Your task to perform on an android device: see creations saved in the google photos Image 0: 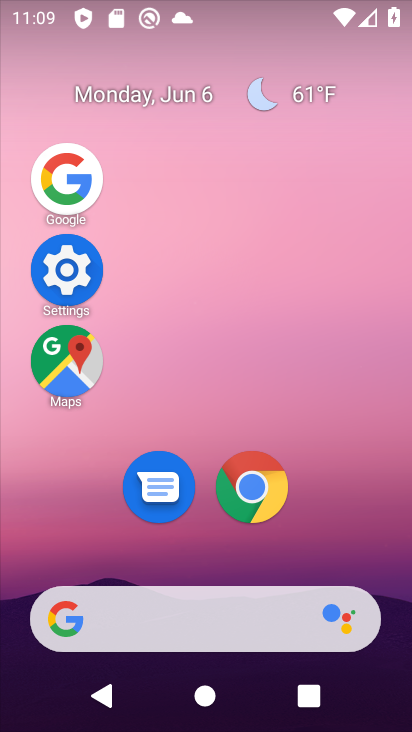
Step 0: drag from (257, 365) to (292, 66)
Your task to perform on an android device: see creations saved in the google photos Image 1: 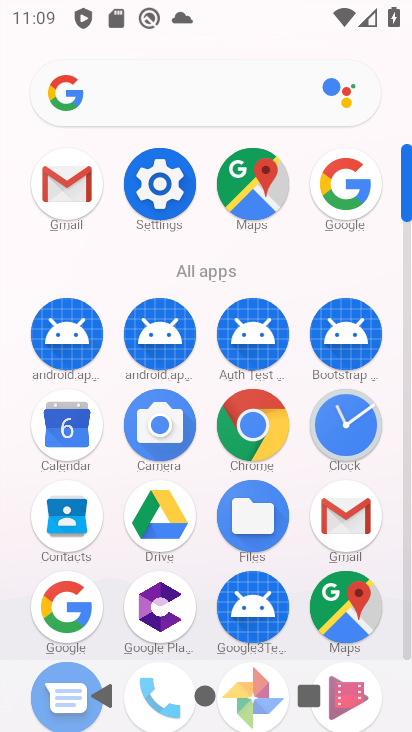
Step 1: drag from (306, 482) to (330, 271)
Your task to perform on an android device: see creations saved in the google photos Image 2: 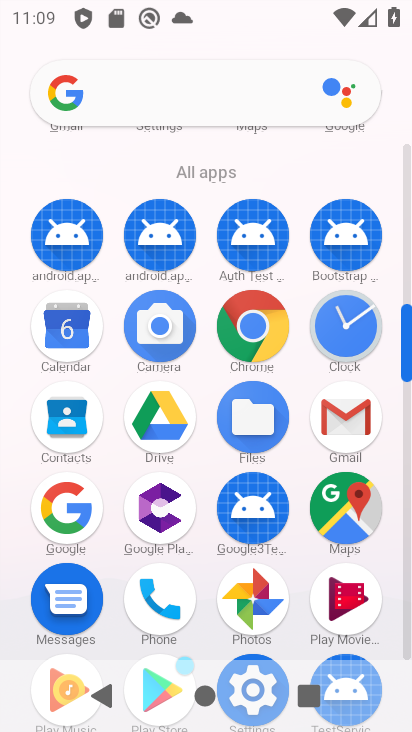
Step 2: click (259, 582)
Your task to perform on an android device: see creations saved in the google photos Image 3: 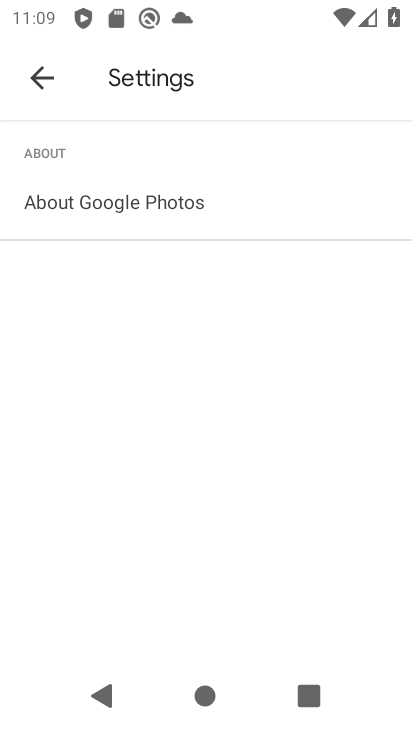
Step 3: click (33, 84)
Your task to perform on an android device: see creations saved in the google photos Image 4: 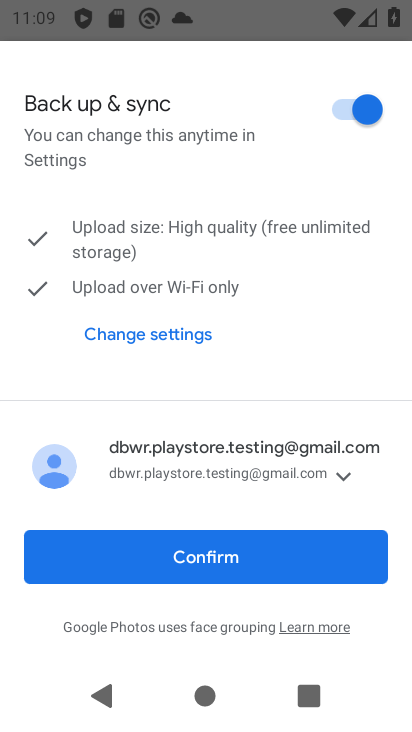
Step 4: click (253, 546)
Your task to perform on an android device: see creations saved in the google photos Image 5: 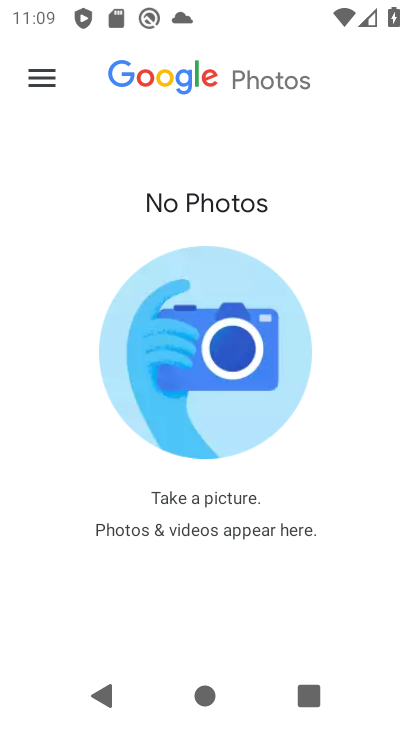
Step 5: click (46, 67)
Your task to perform on an android device: see creations saved in the google photos Image 6: 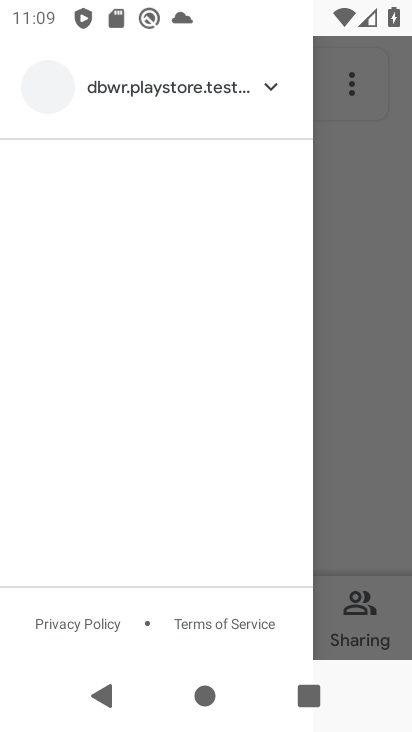
Step 6: click (226, 67)
Your task to perform on an android device: see creations saved in the google photos Image 7: 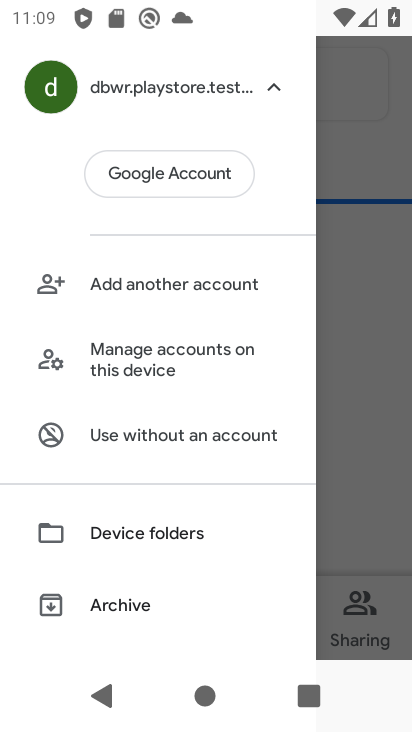
Step 7: click (360, 91)
Your task to perform on an android device: see creations saved in the google photos Image 8: 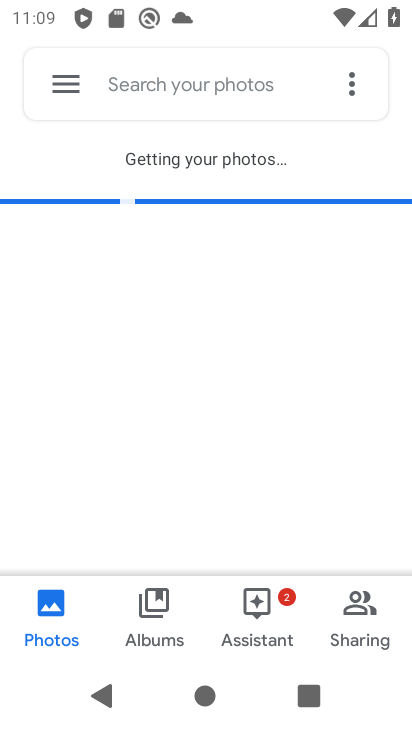
Step 8: click (261, 84)
Your task to perform on an android device: see creations saved in the google photos Image 9: 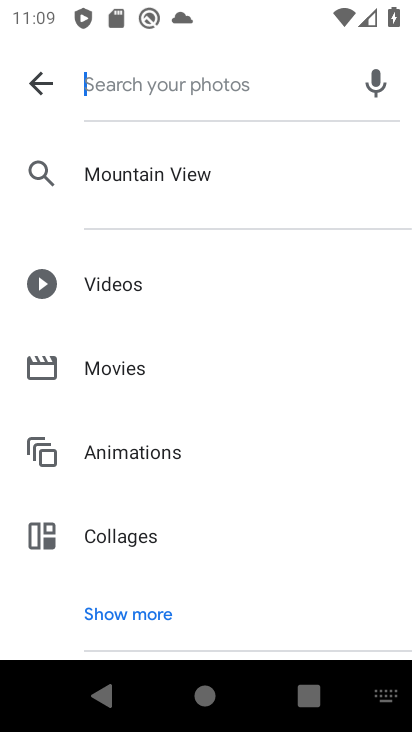
Step 9: click (156, 611)
Your task to perform on an android device: see creations saved in the google photos Image 10: 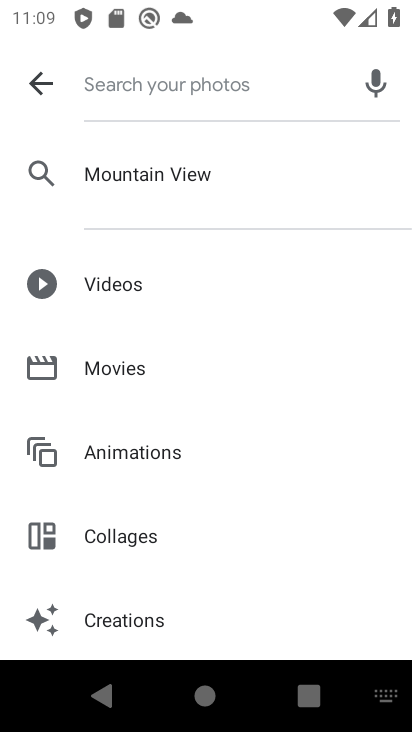
Step 10: drag from (172, 571) to (210, 252)
Your task to perform on an android device: see creations saved in the google photos Image 11: 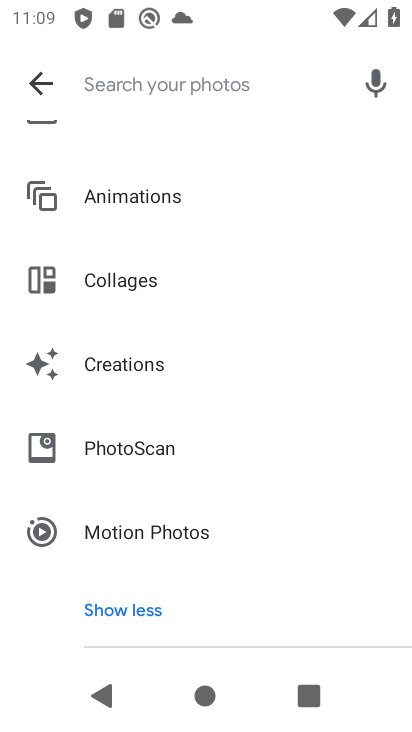
Step 11: click (161, 359)
Your task to perform on an android device: see creations saved in the google photos Image 12: 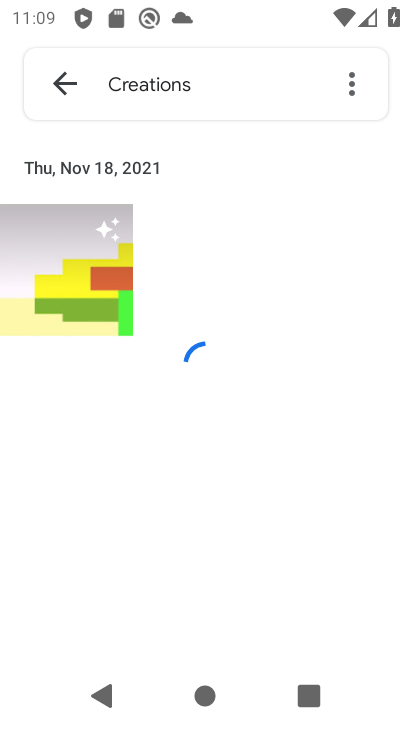
Step 12: task complete